Your task to perform on an android device: When is my next meeting? Image 0: 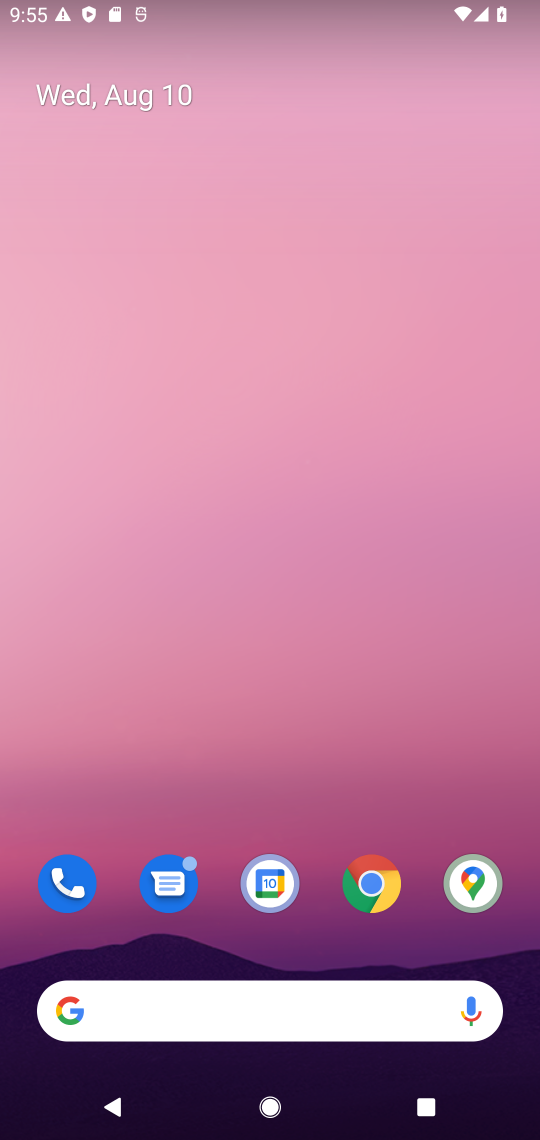
Step 0: drag from (328, 928) to (268, 9)
Your task to perform on an android device: When is my next meeting? Image 1: 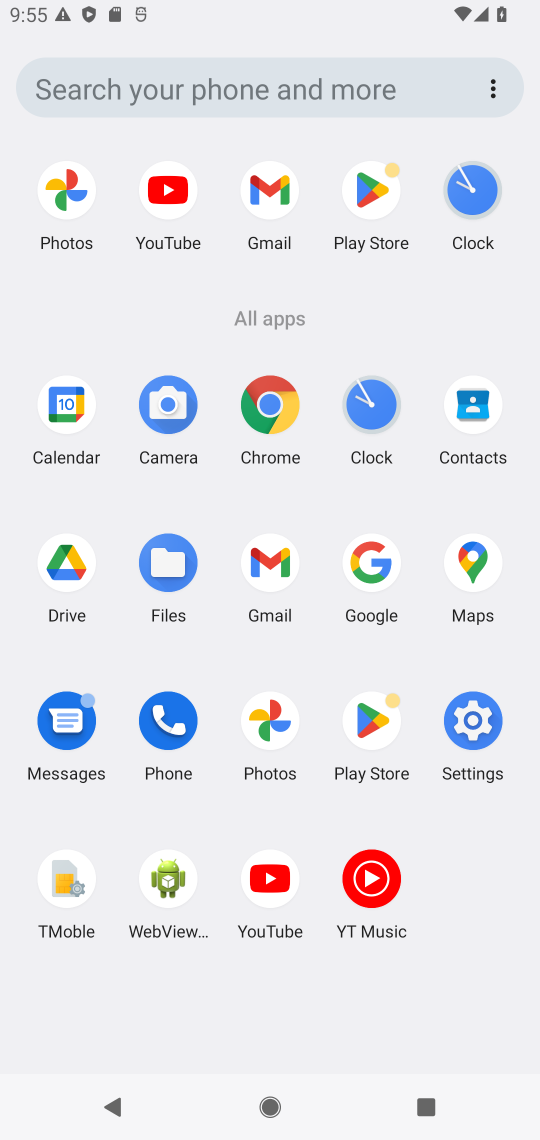
Step 1: click (53, 395)
Your task to perform on an android device: When is my next meeting? Image 2: 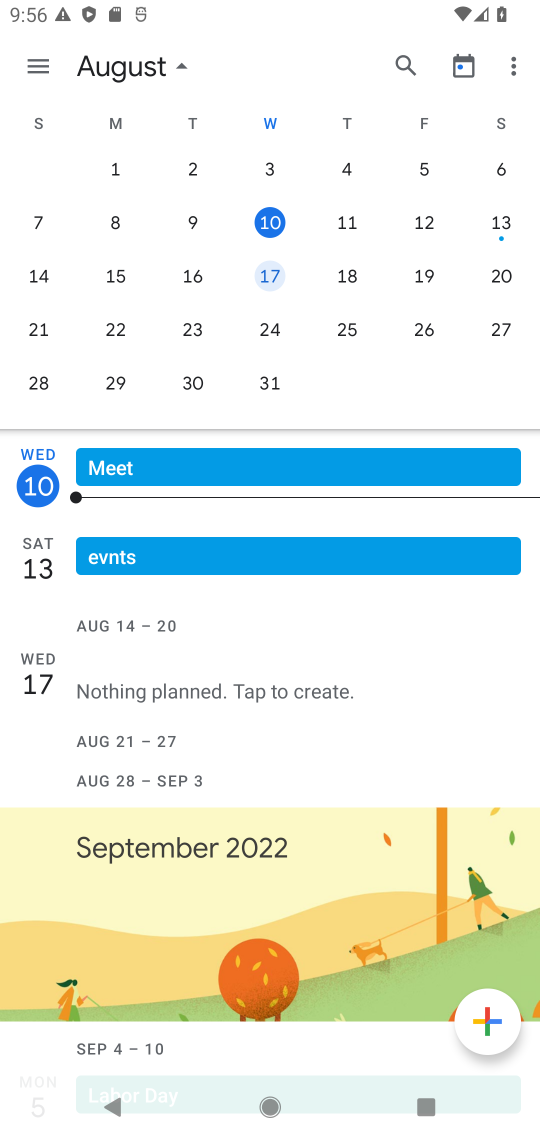
Step 2: click (261, 220)
Your task to perform on an android device: When is my next meeting? Image 3: 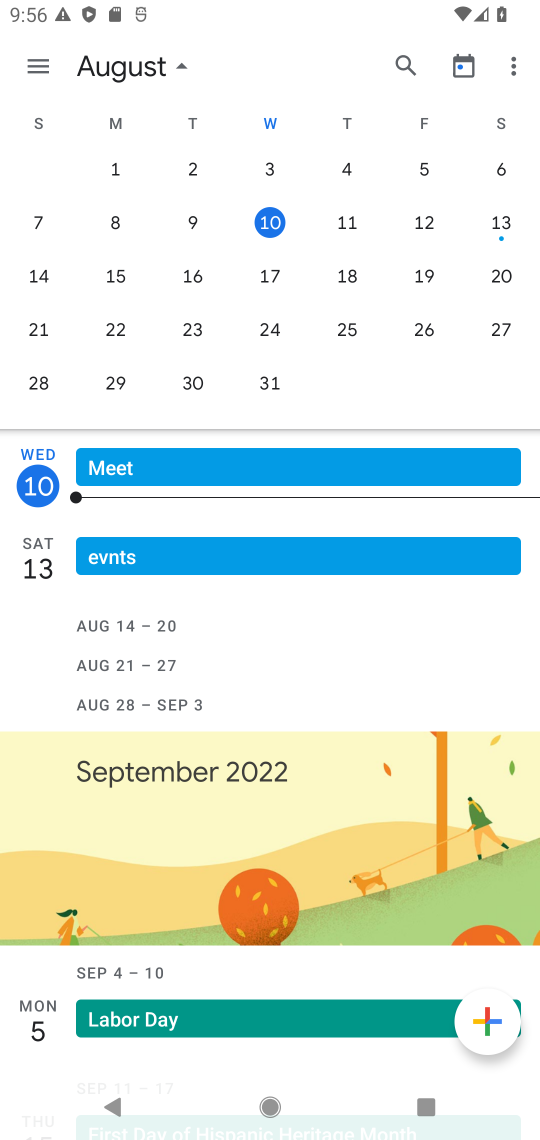
Step 3: task complete